Your task to perform on an android device: turn off notifications settings in the gmail app Image 0: 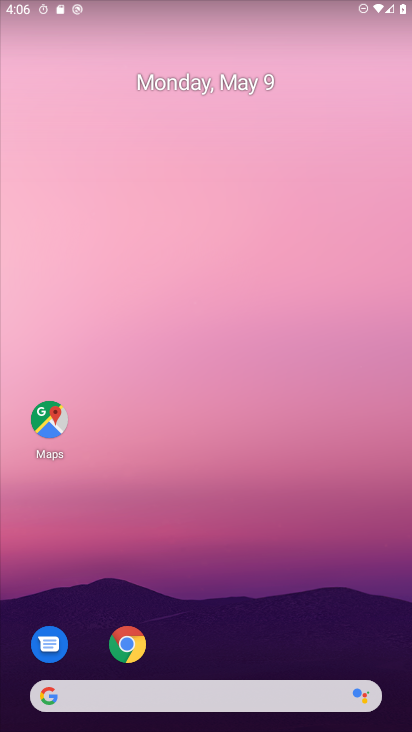
Step 0: drag from (256, 617) to (265, 61)
Your task to perform on an android device: turn off notifications settings in the gmail app Image 1: 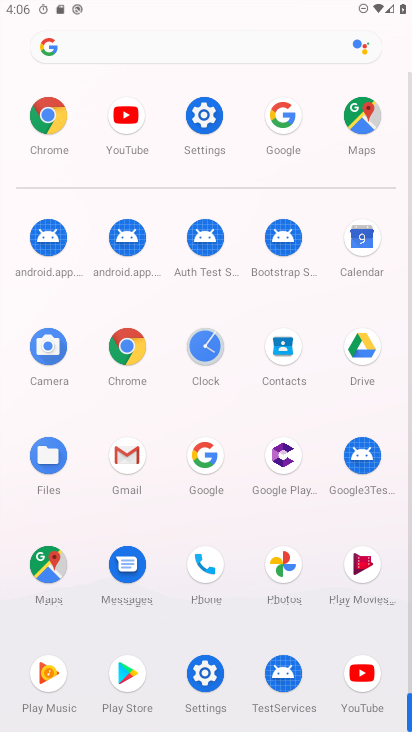
Step 1: click (128, 466)
Your task to perform on an android device: turn off notifications settings in the gmail app Image 2: 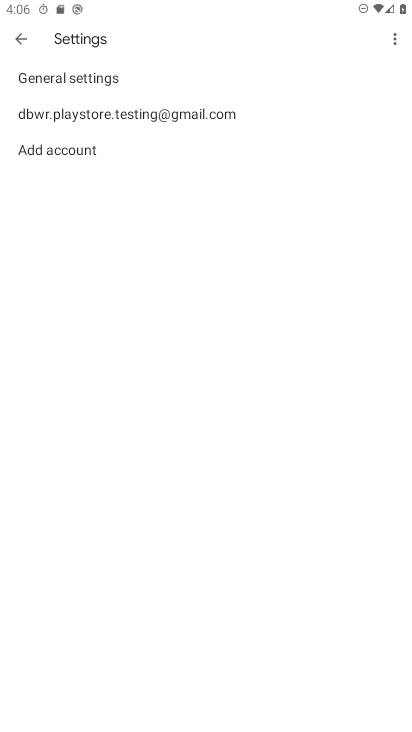
Step 2: click (124, 121)
Your task to perform on an android device: turn off notifications settings in the gmail app Image 3: 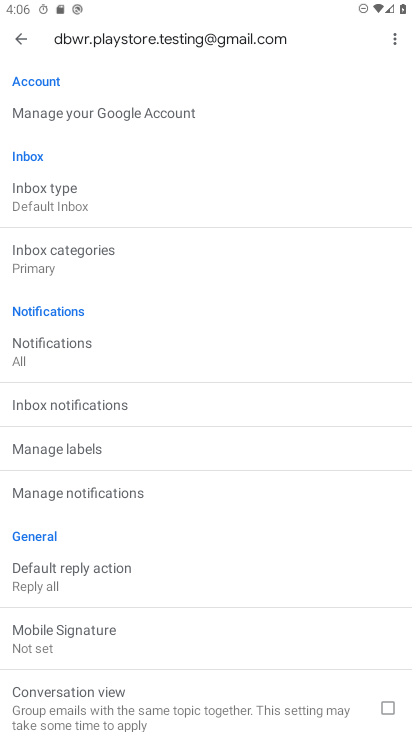
Step 3: click (85, 346)
Your task to perform on an android device: turn off notifications settings in the gmail app Image 4: 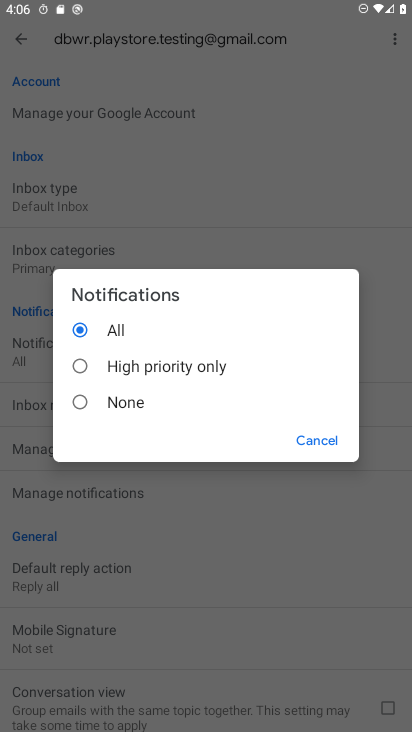
Step 4: click (78, 400)
Your task to perform on an android device: turn off notifications settings in the gmail app Image 5: 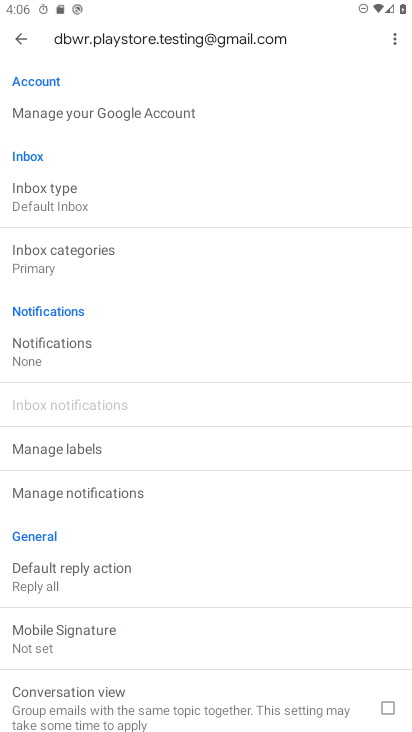
Step 5: task complete